Your task to perform on an android device: turn on translation in the chrome app Image 0: 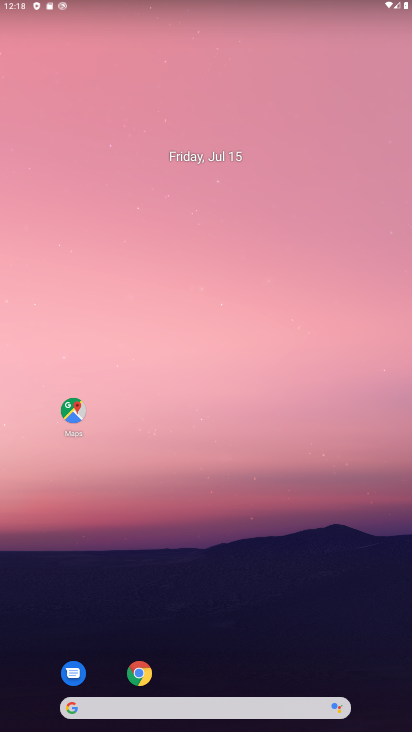
Step 0: drag from (193, 612) to (250, 17)
Your task to perform on an android device: turn on translation in the chrome app Image 1: 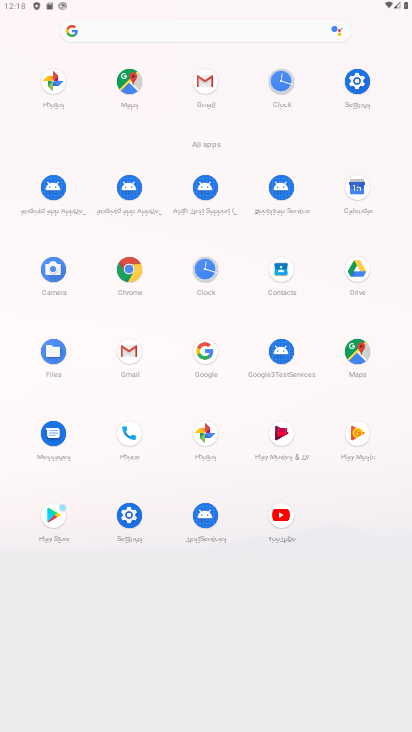
Step 1: click (131, 290)
Your task to perform on an android device: turn on translation in the chrome app Image 2: 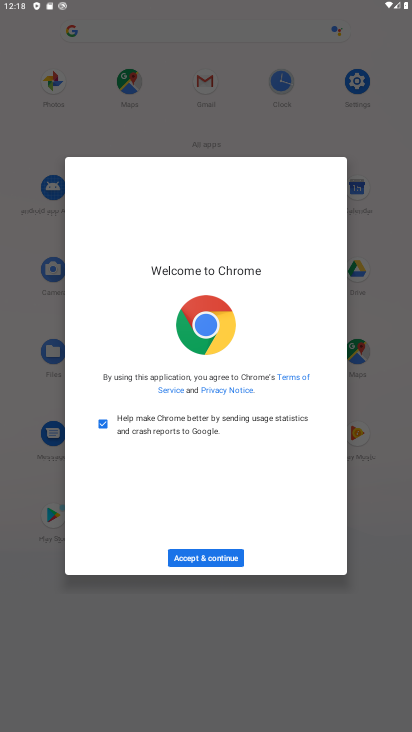
Step 2: click (211, 558)
Your task to perform on an android device: turn on translation in the chrome app Image 3: 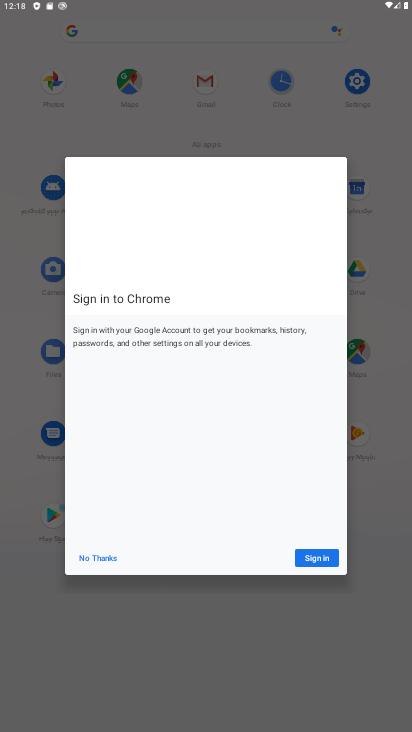
Step 3: click (319, 551)
Your task to perform on an android device: turn on translation in the chrome app Image 4: 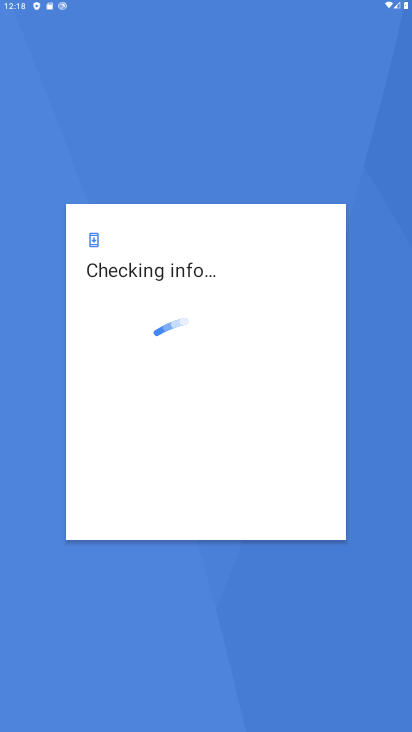
Step 4: press back button
Your task to perform on an android device: turn on translation in the chrome app Image 5: 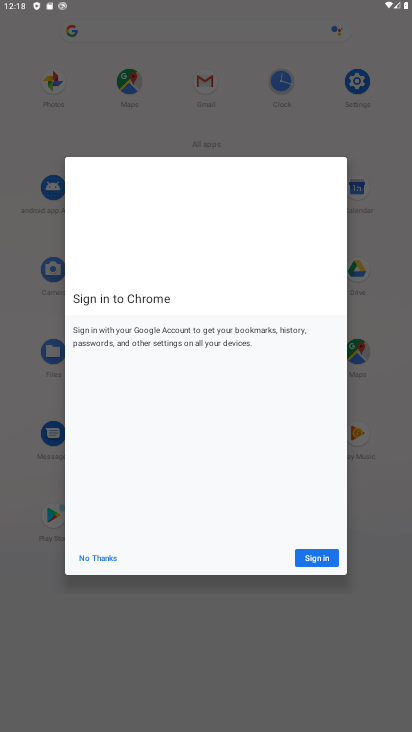
Step 5: click (90, 565)
Your task to perform on an android device: turn on translation in the chrome app Image 6: 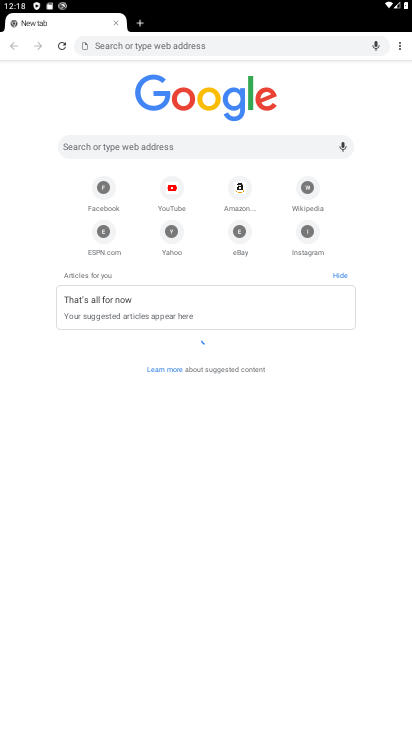
Step 6: click (400, 42)
Your task to perform on an android device: turn on translation in the chrome app Image 7: 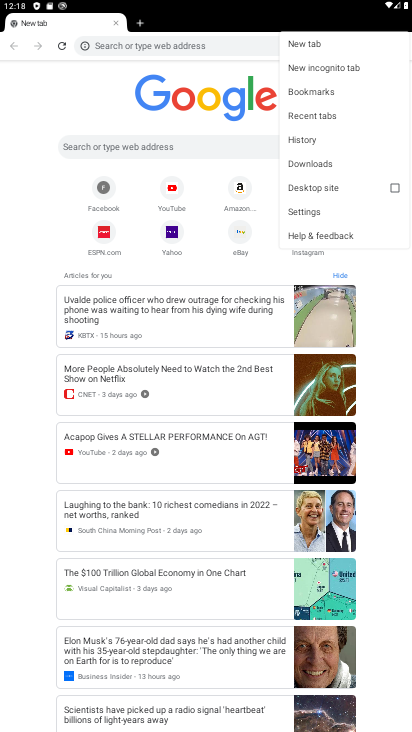
Step 7: click (316, 210)
Your task to perform on an android device: turn on translation in the chrome app Image 8: 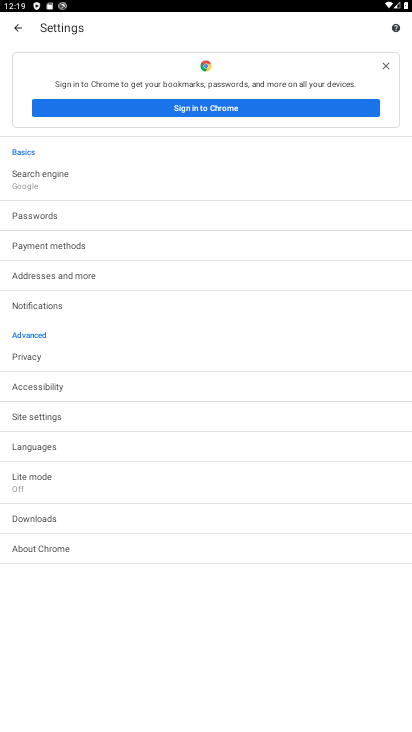
Step 8: click (58, 444)
Your task to perform on an android device: turn on translation in the chrome app Image 9: 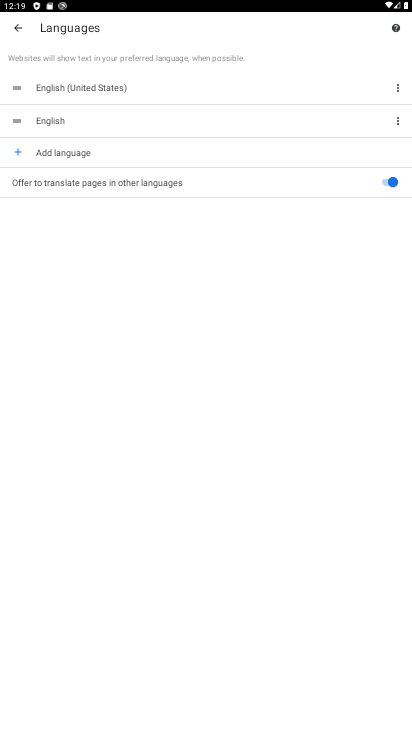
Step 9: task complete